Your task to perform on an android device: Add macbook air to the cart on target.com Image 0: 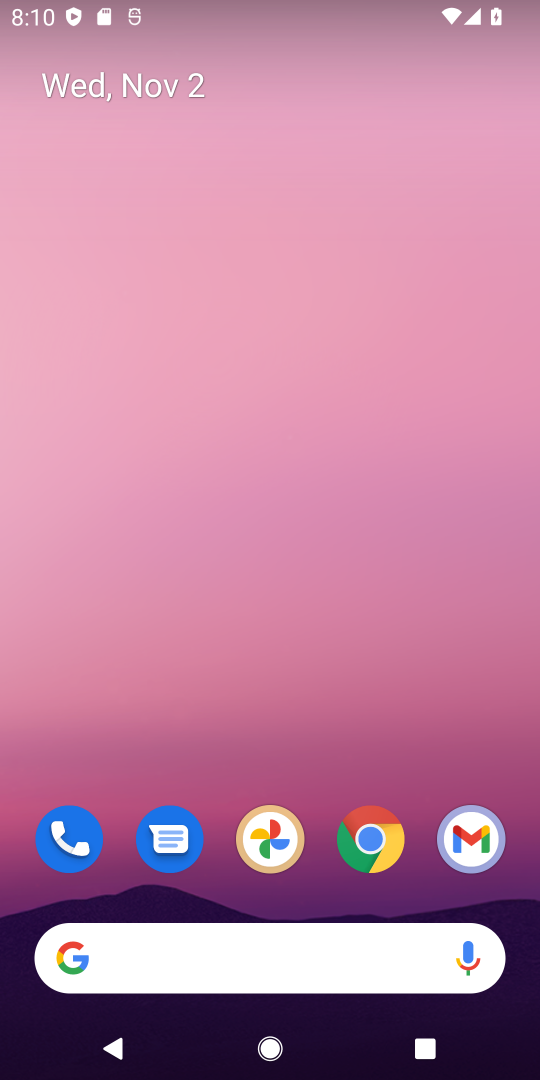
Step 0: click (373, 840)
Your task to perform on an android device: Add macbook air to the cart on target.com Image 1: 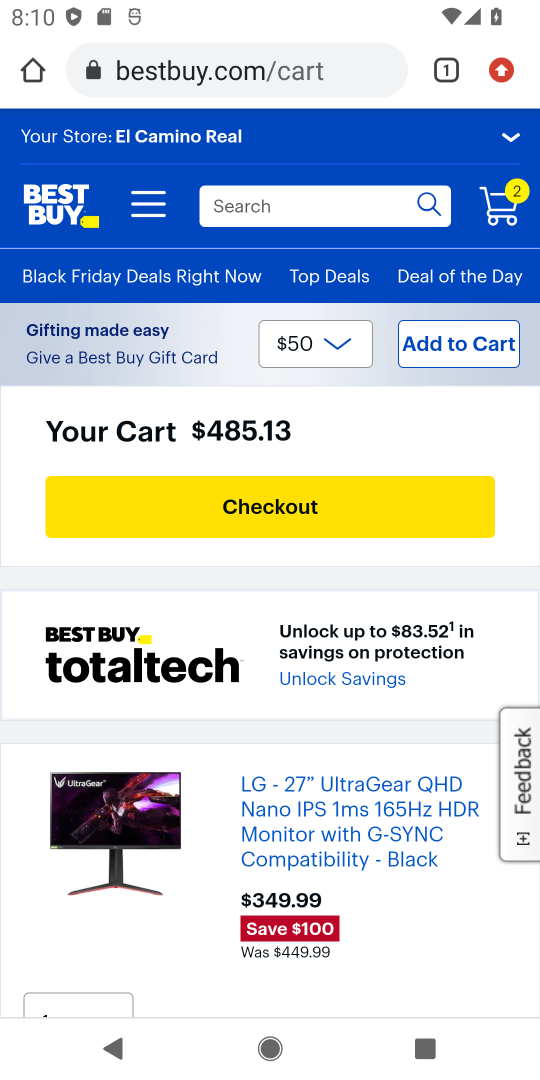
Step 1: click (289, 87)
Your task to perform on an android device: Add macbook air to the cart on target.com Image 2: 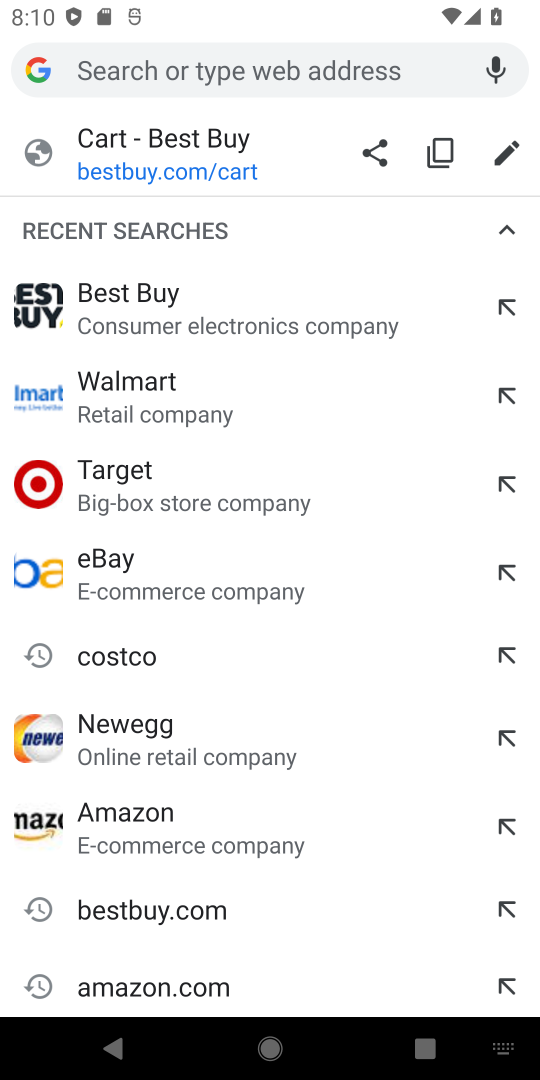
Step 2: type "target.com"
Your task to perform on an android device: Add macbook air to the cart on target.com Image 3: 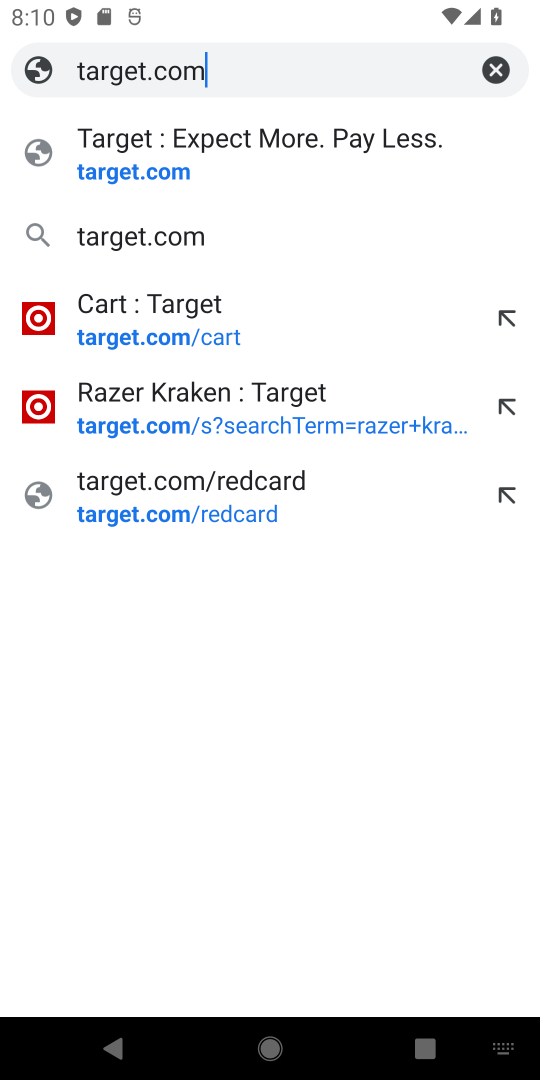
Step 3: click (156, 249)
Your task to perform on an android device: Add macbook air to the cart on target.com Image 4: 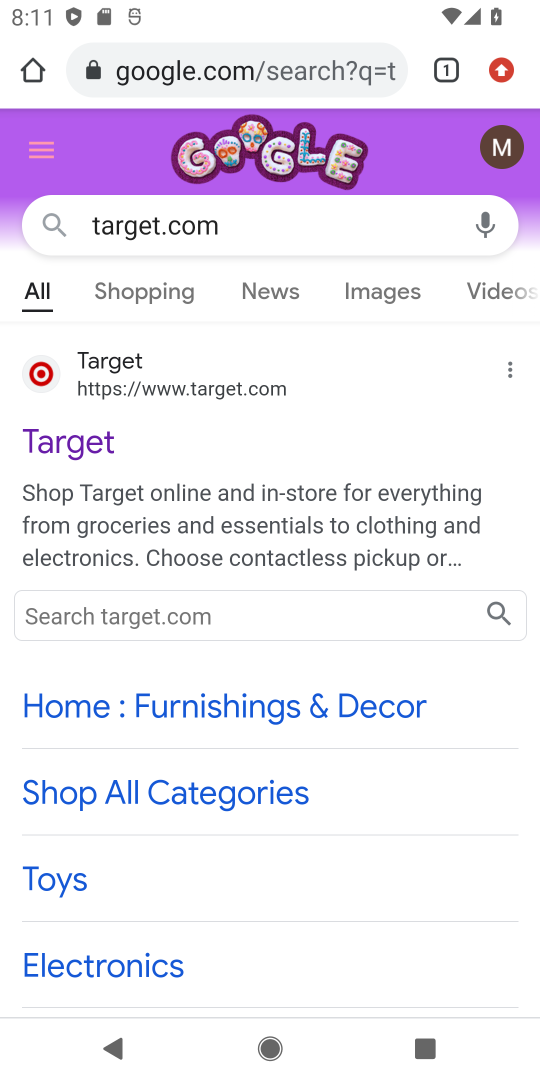
Step 4: click (140, 429)
Your task to perform on an android device: Add macbook air to the cart on target.com Image 5: 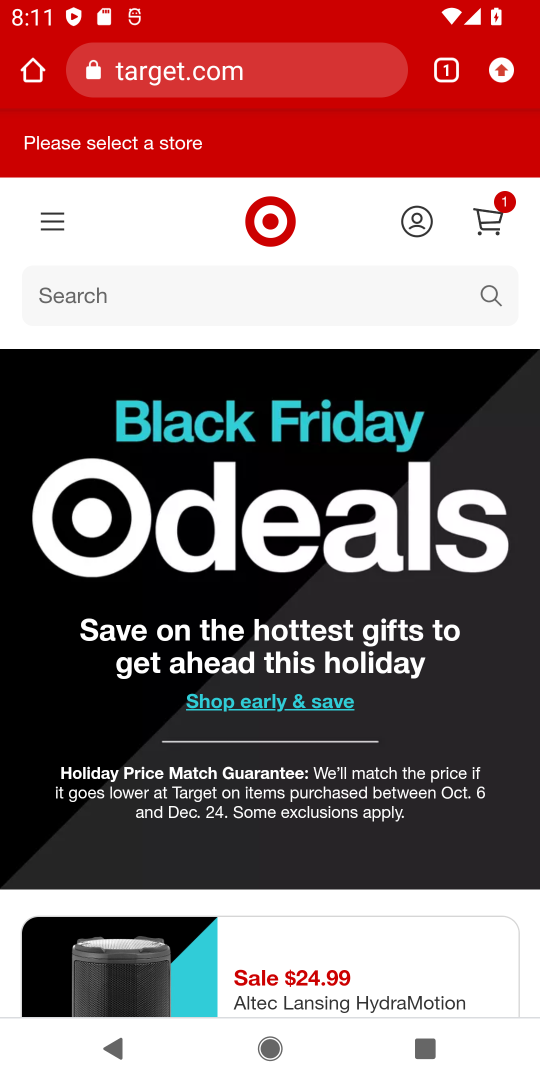
Step 5: click (141, 304)
Your task to perform on an android device: Add macbook air to the cart on target.com Image 6: 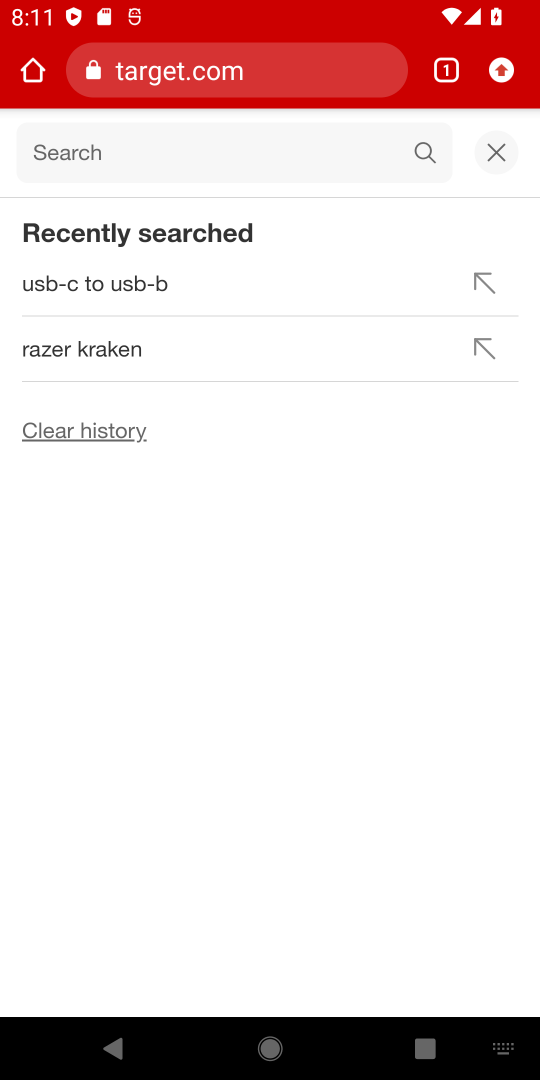
Step 6: type "macbook air"
Your task to perform on an android device: Add macbook air to the cart on target.com Image 7: 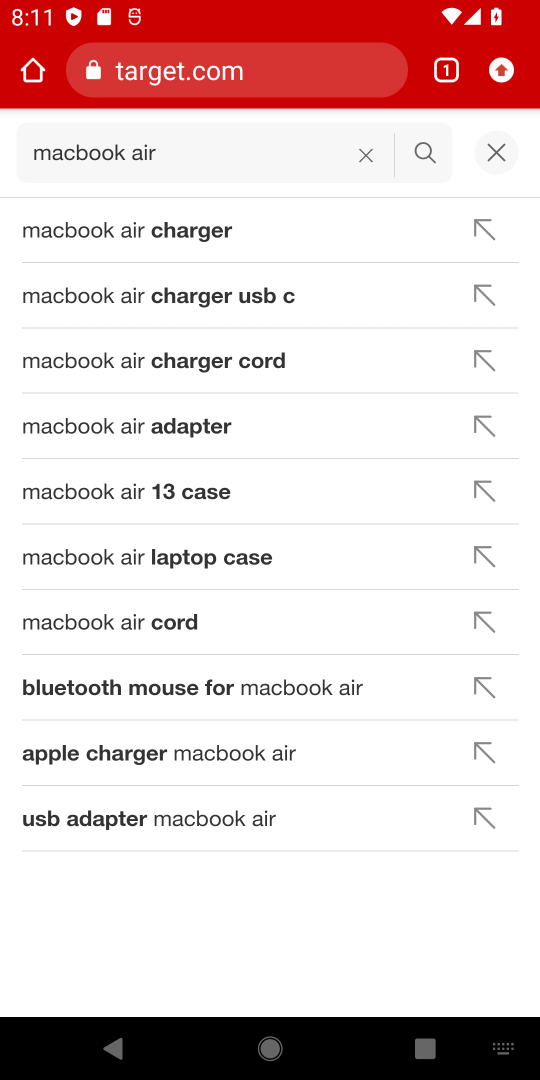
Step 7: click (413, 151)
Your task to perform on an android device: Add macbook air to the cart on target.com Image 8: 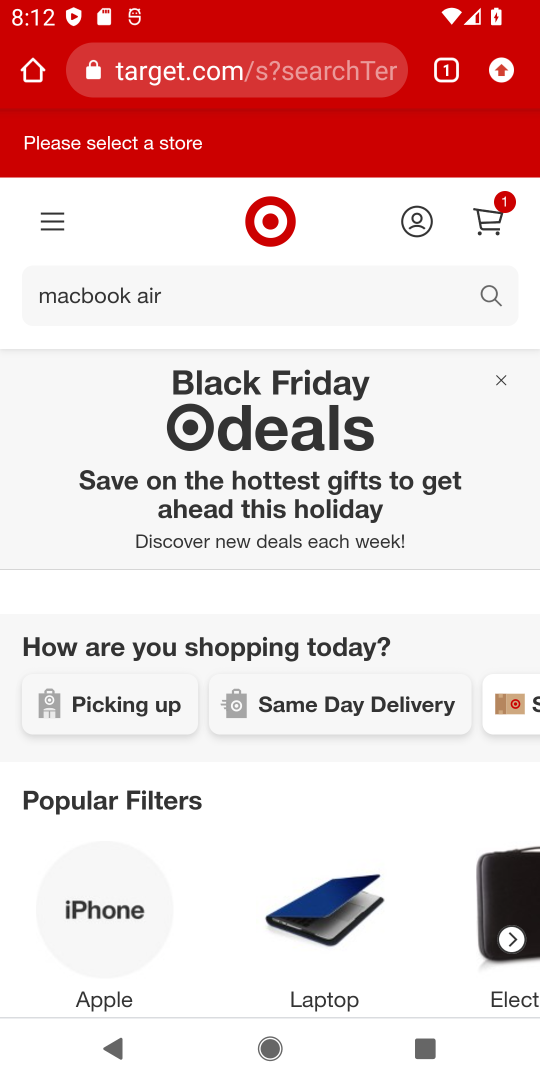
Step 8: drag from (273, 851) to (329, 365)
Your task to perform on an android device: Add macbook air to the cart on target.com Image 9: 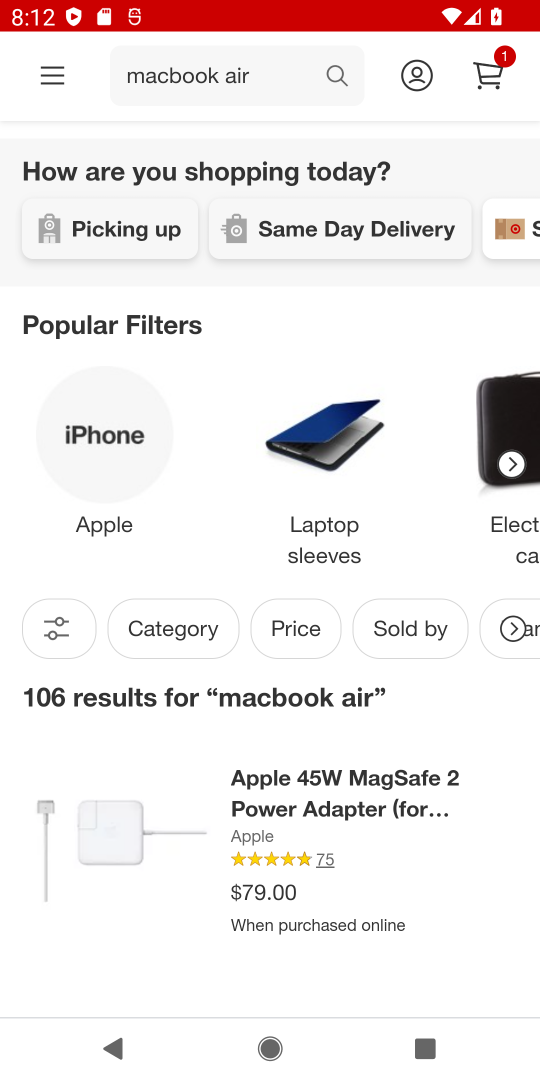
Step 9: drag from (292, 861) to (348, 492)
Your task to perform on an android device: Add macbook air to the cart on target.com Image 10: 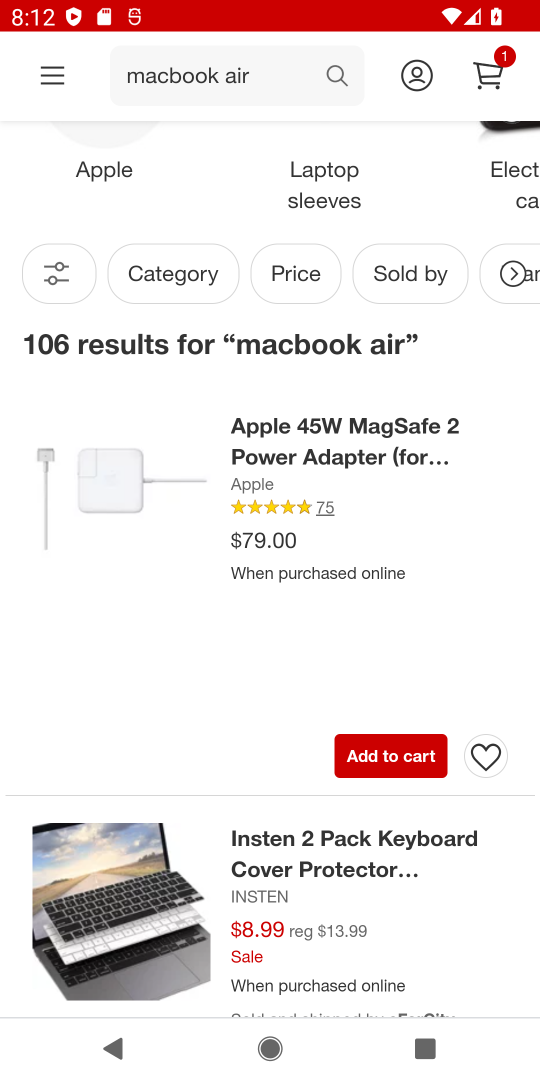
Step 10: click (387, 760)
Your task to perform on an android device: Add macbook air to the cart on target.com Image 11: 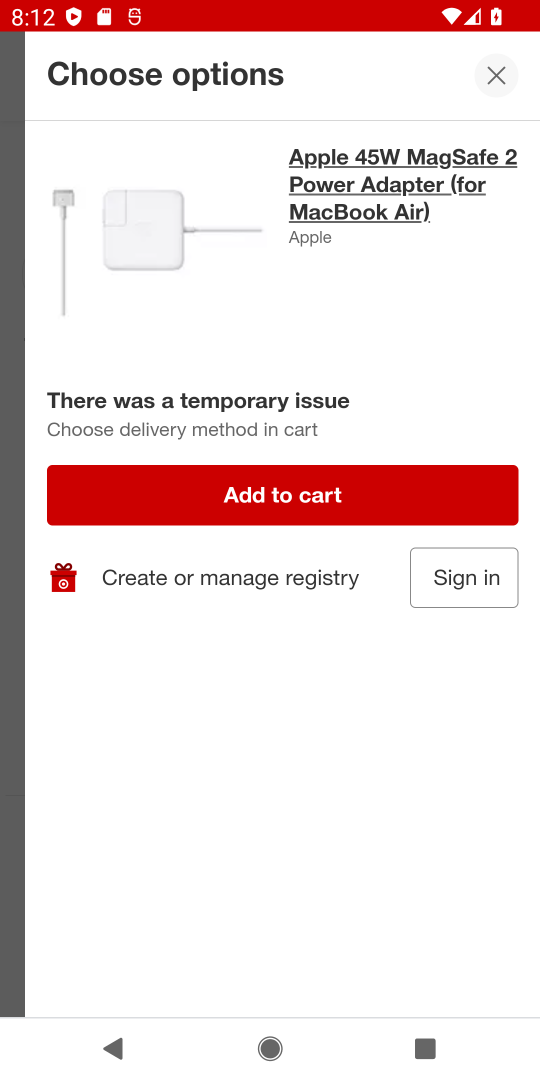
Step 11: click (283, 500)
Your task to perform on an android device: Add macbook air to the cart on target.com Image 12: 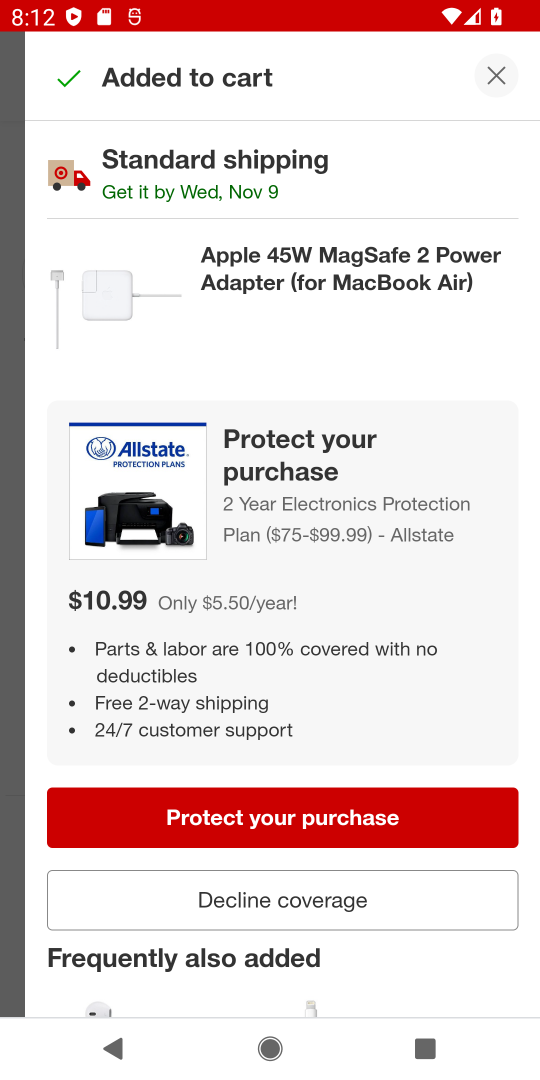
Step 12: click (369, 899)
Your task to perform on an android device: Add macbook air to the cart on target.com Image 13: 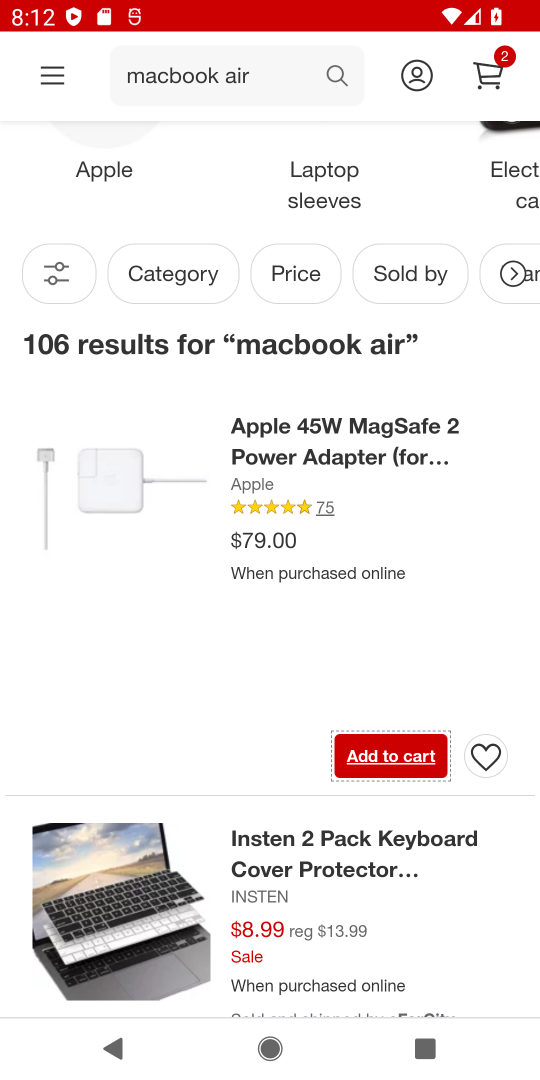
Step 13: task complete